Your task to perform on an android device: Go to privacy settings Image 0: 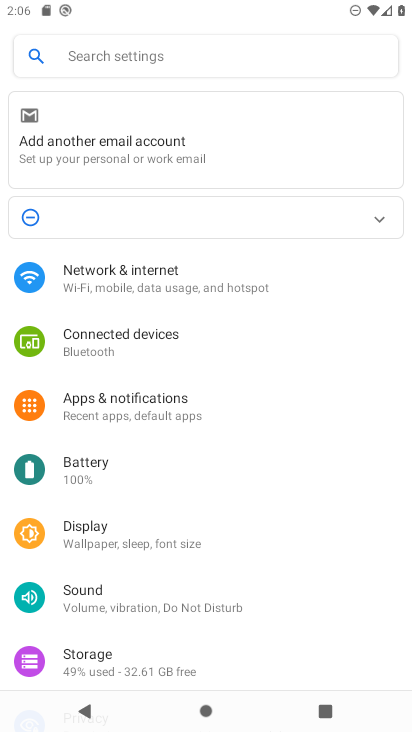
Step 0: press back button
Your task to perform on an android device: Go to privacy settings Image 1: 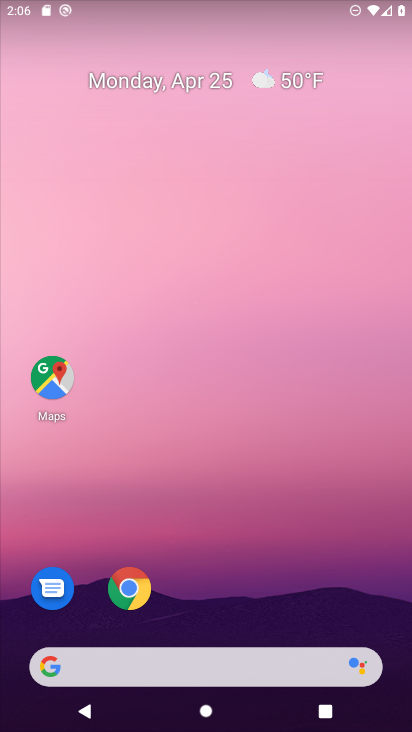
Step 1: drag from (228, 528) to (268, 74)
Your task to perform on an android device: Go to privacy settings Image 2: 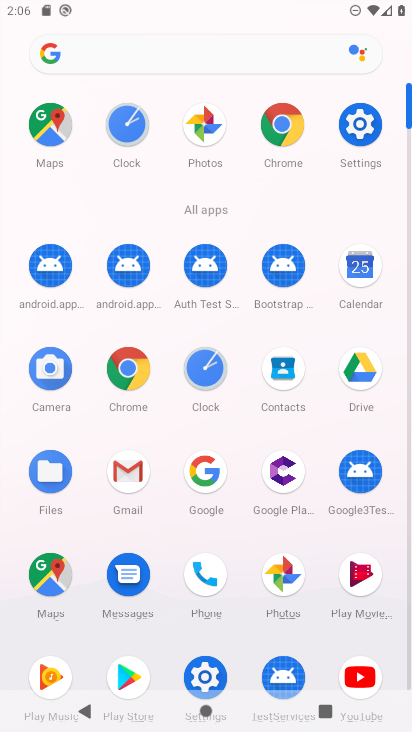
Step 2: click (122, 385)
Your task to perform on an android device: Go to privacy settings Image 3: 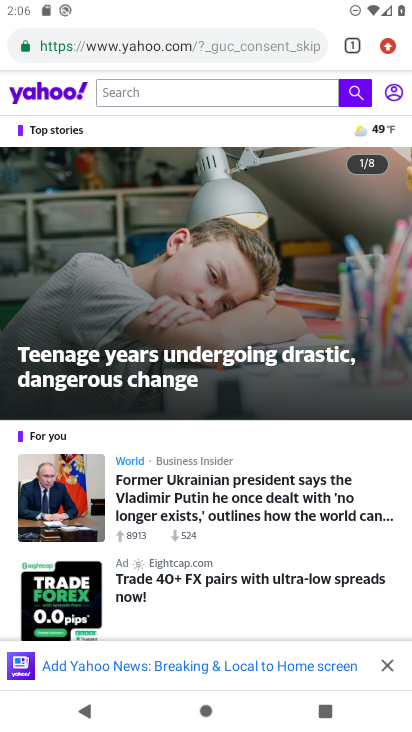
Step 3: drag from (393, 50) to (273, 598)
Your task to perform on an android device: Go to privacy settings Image 4: 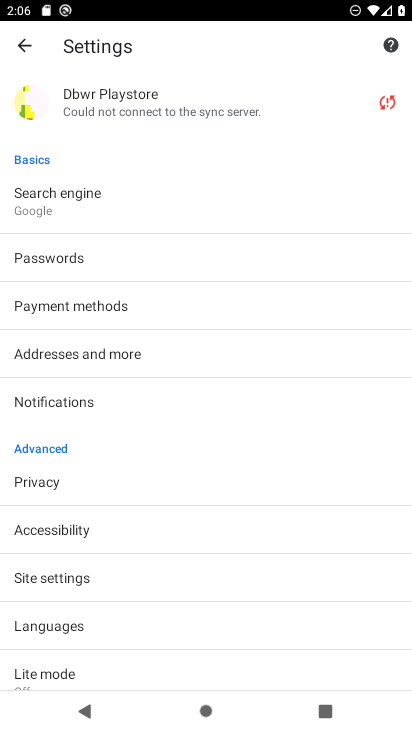
Step 4: click (131, 495)
Your task to perform on an android device: Go to privacy settings Image 5: 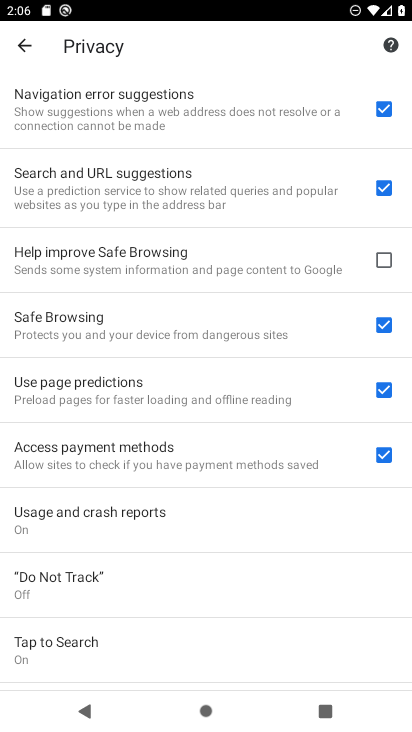
Step 5: task complete